Your task to perform on an android device: turn on wifi Image 0: 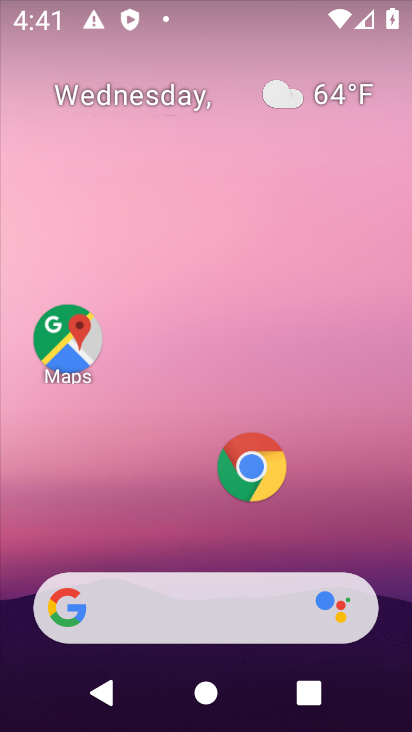
Step 0: drag from (173, 508) to (213, 87)
Your task to perform on an android device: turn on wifi Image 1: 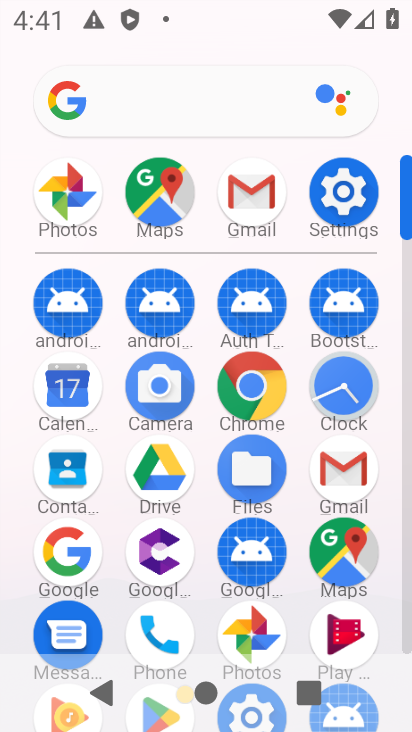
Step 1: task complete